Your task to perform on an android device: open a new tab in the chrome app Image 0: 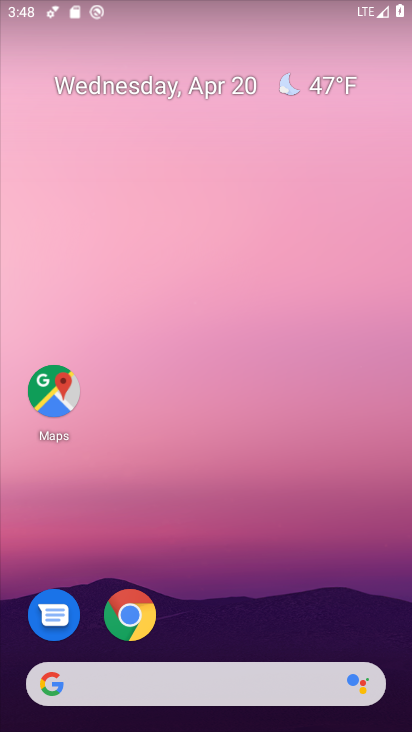
Step 0: click (118, 616)
Your task to perform on an android device: open a new tab in the chrome app Image 1: 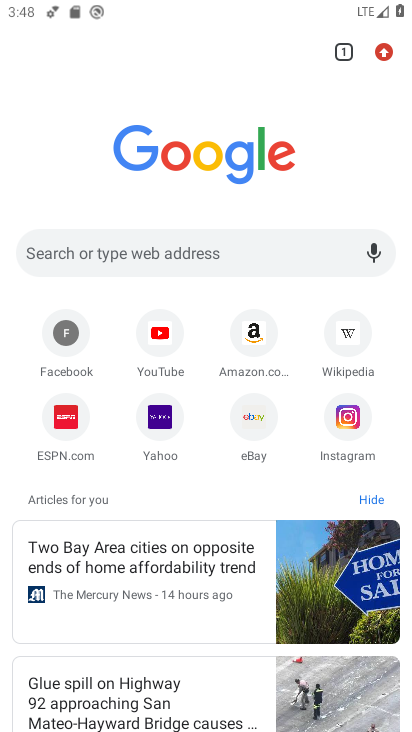
Step 1: click (343, 48)
Your task to perform on an android device: open a new tab in the chrome app Image 2: 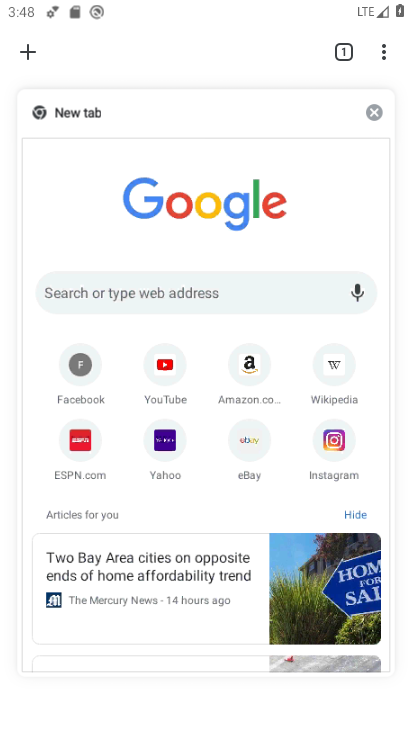
Step 2: click (28, 51)
Your task to perform on an android device: open a new tab in the chrome app Image 3: 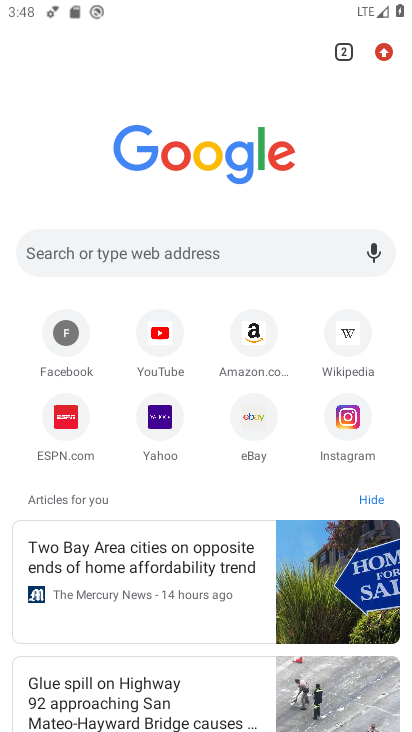
Step 3: task complete